Your task to perform on an android device: What is the news today? Image 0: 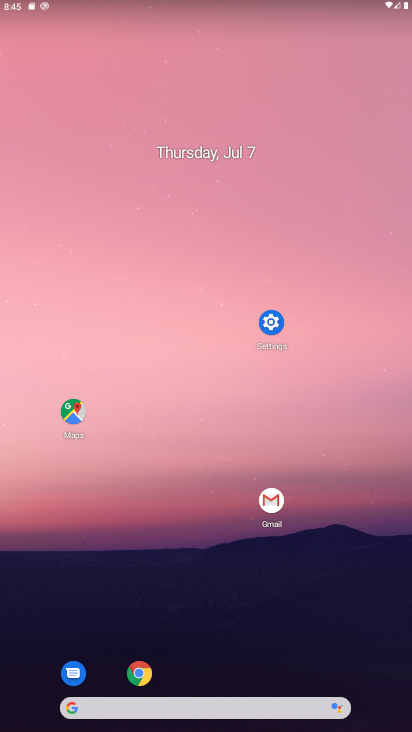
Step 0: click (404, 243)
Your task to perform on an android device: What is the news today? Image 1: 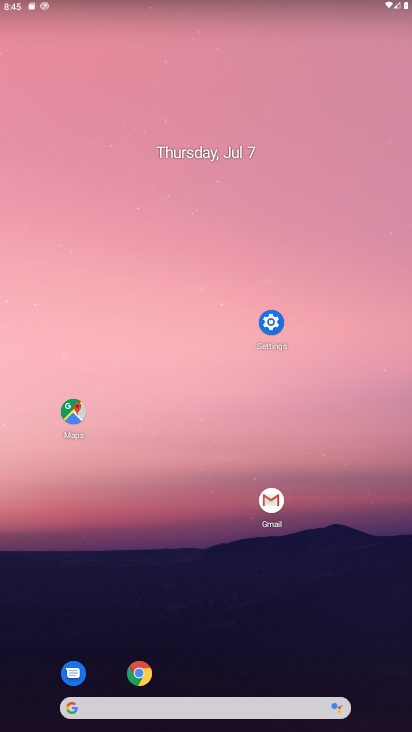
Step 1: click (10, 215)
Your task to perform on an android device: What is the news today? Image 2: 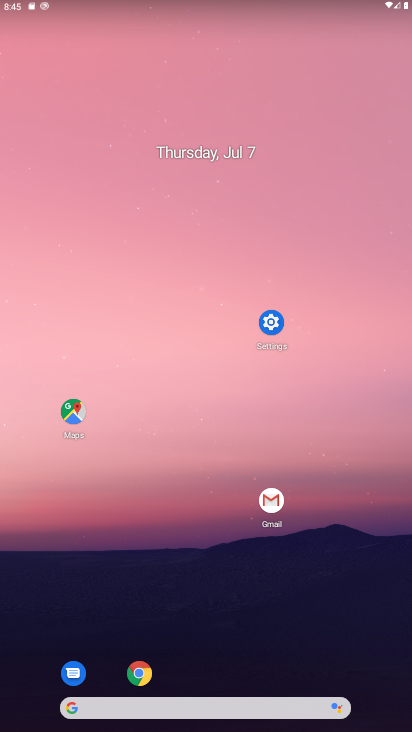
Step 2: task complete